Your task to perform on an android device: Open wifi settings Image 0: 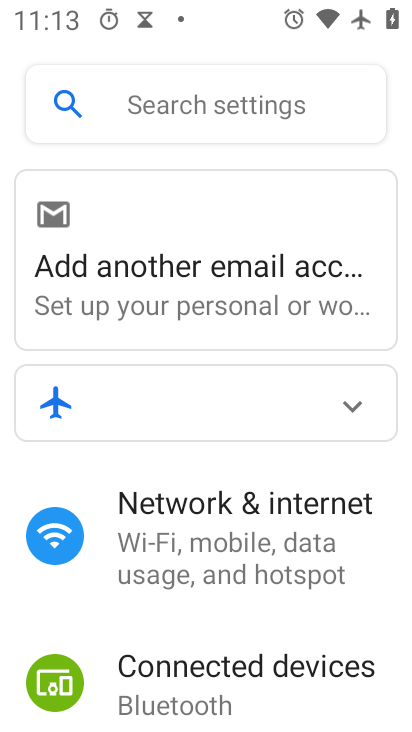
Step 0: press home button
Your task to perform on an android device: Open wifi settings Image 1: 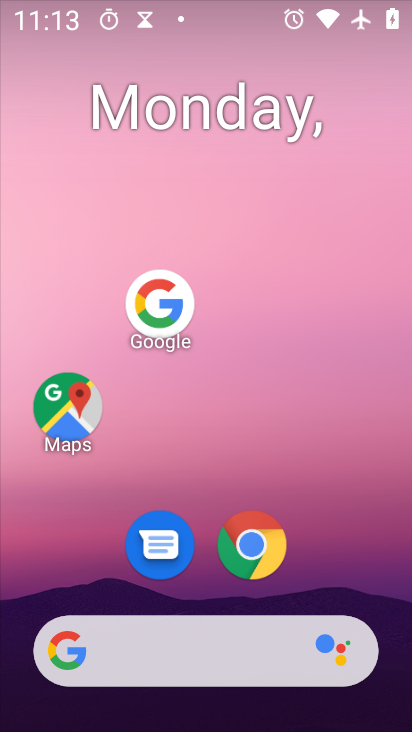
Step 1: drag from (166, 653) to (279, 0)
Your task to perform on an android device: Open wifi settings Image 2: 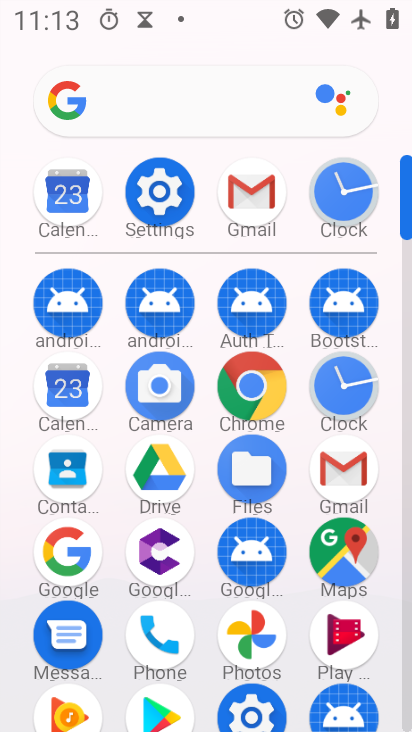
Step 2: click (167, 195)
Your task to perform on an android device: Open wifi settings Image 3: 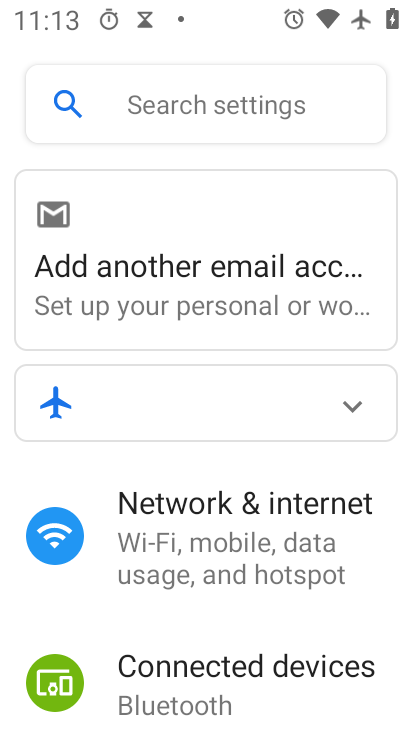
Step 3: click (199, 513)
Your task to perform on an android device: Open wifi settings Image 4: 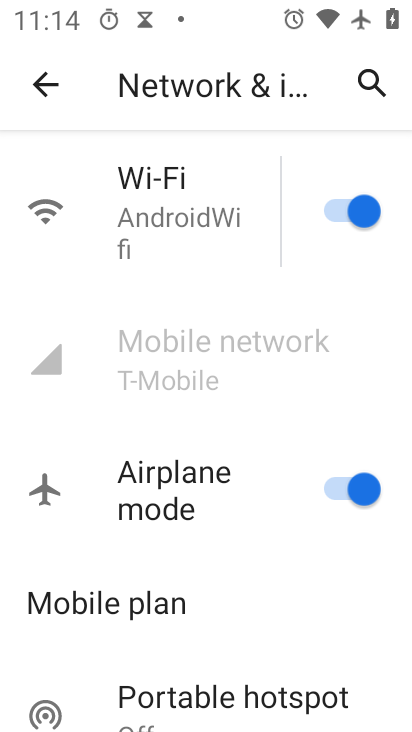
Step 4: click (165, 219)
Your task to perform on an android device: Open wifi settings Image 5: 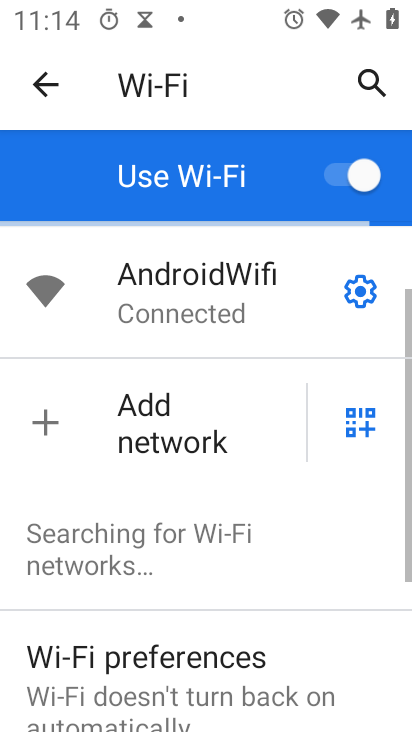
Step 5: task complete